Your task to perform on an android device: Go to display settings Image 0: 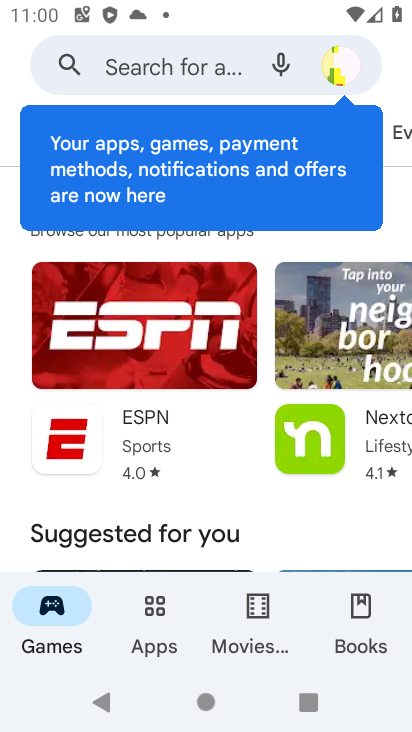
Step 0: press home button
Your task to perform on an android device: Go to display settings Image 1: 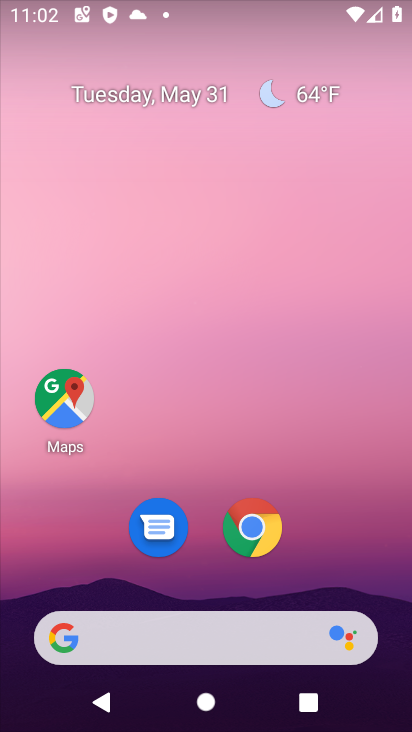
Step 1: drag from (185, 551) to (404, 322)
Your task to perform on an android device: Go to display settings Image 2: 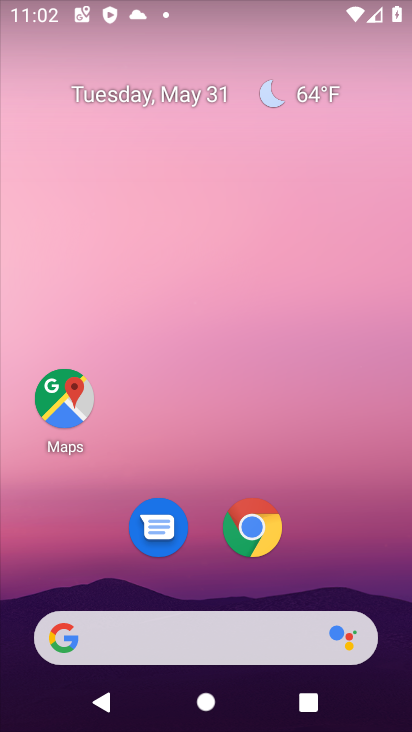
Step 2: drag from (174, 684) to (411, 149)
Your task to perform on an android device: Go to display settings Image 3: 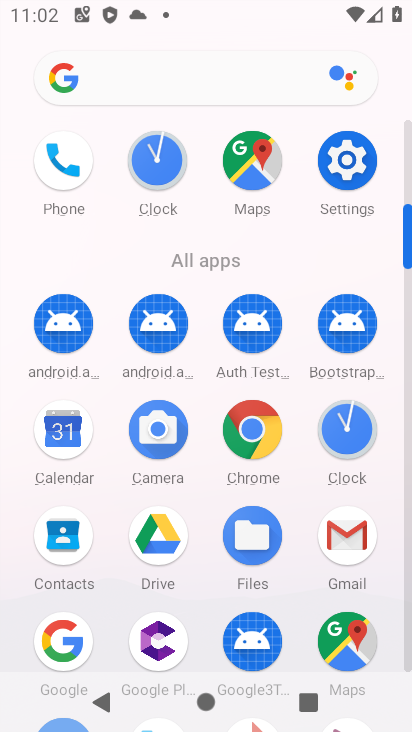
Step 3: click (336, 163)
Your task to perform on an android device: Go to display settings Image 4: 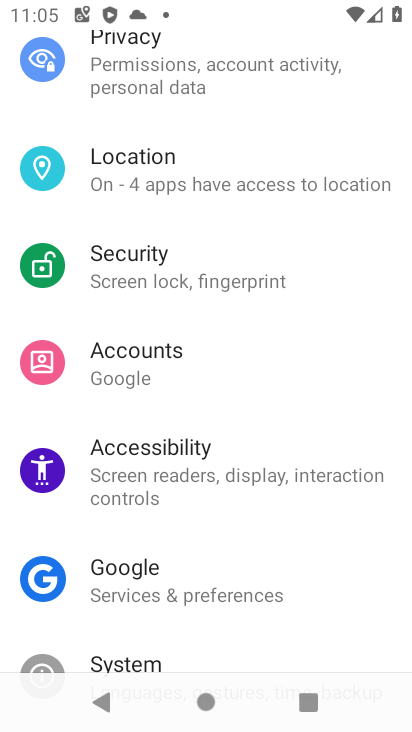
Step 4: drag from (291, 147) to (145, 680)
Your task to perform on an android device: Go to display settings Image 5: 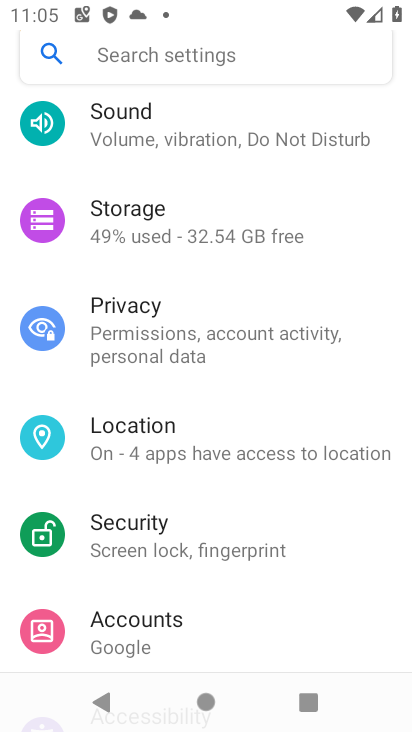
Step 5: drag from (252, 211) to (231, 711)
Your task to perform on an android device: Go to display settings Image 6: 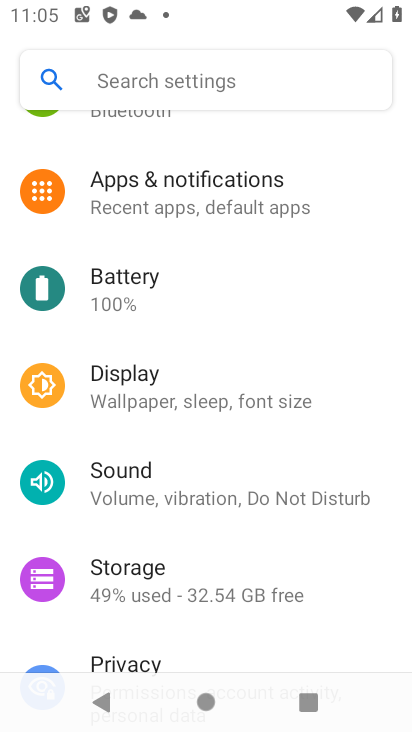
Step 6: click (204, 386)
Your task to perform on an android device: Go to display settings Image 7: 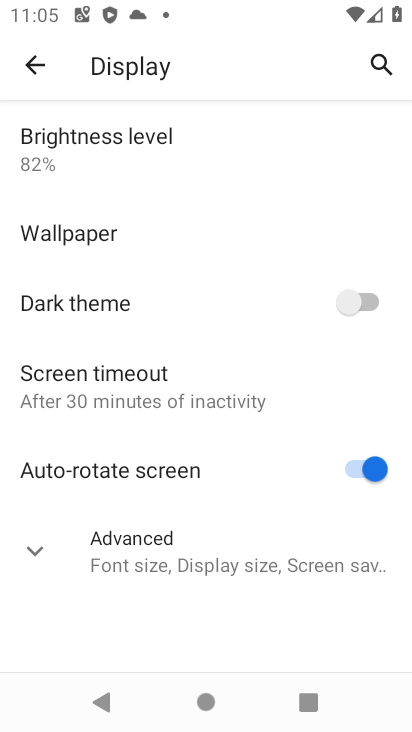
Step 7: task complete